Your task to perform on an android device: Open notification settings Image 0: 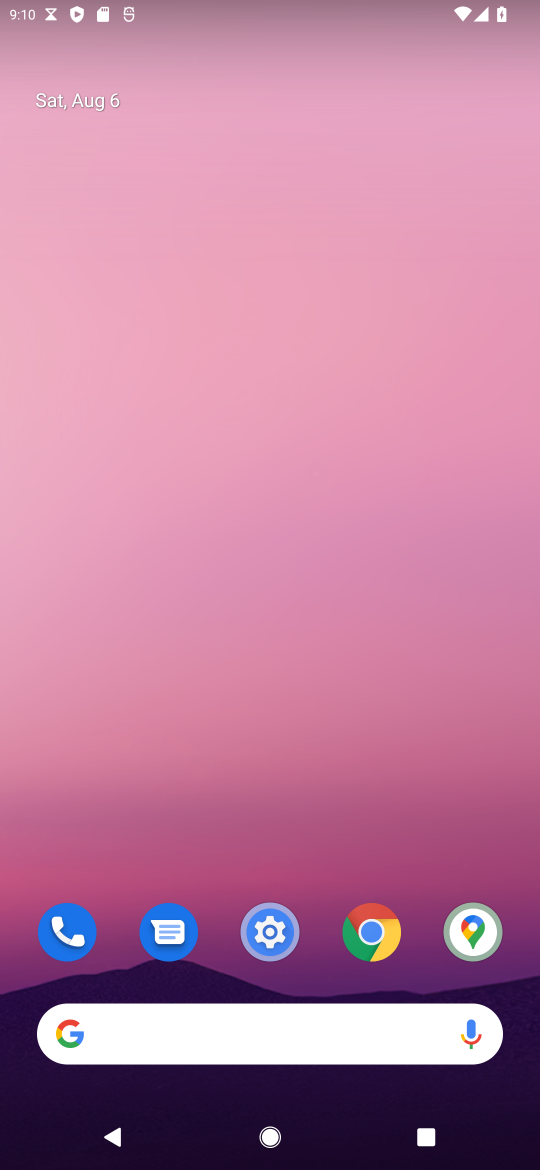
Step 0: drag from (206, 1059) to (323, 503)
Your task to perform on an android device: Open notification settings Image 1: 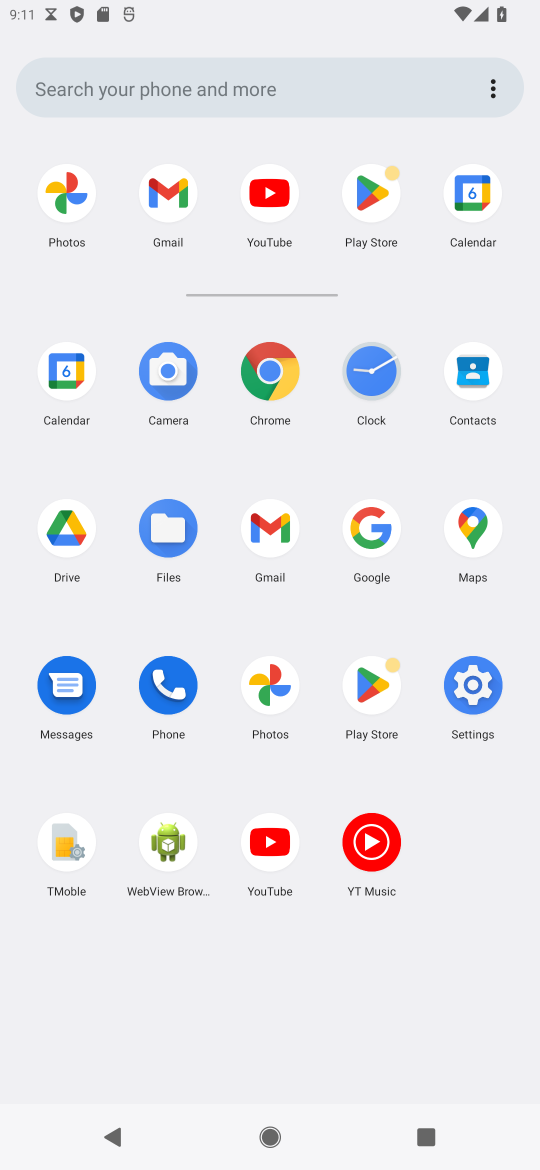
Step 1: click (474, 686)
Your task to perform on an android device: Open notification settings Image 2: 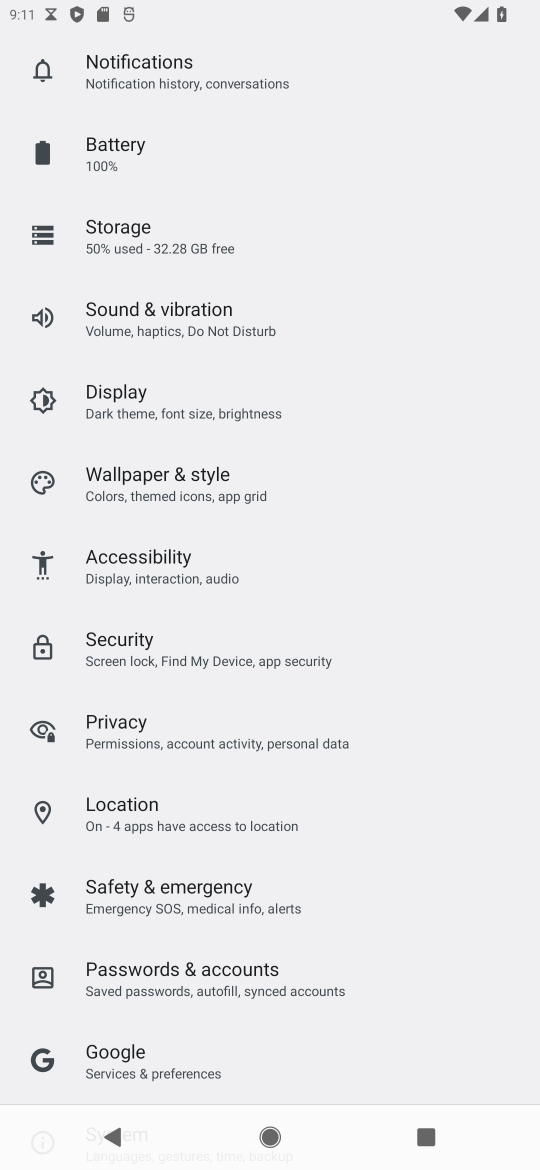
Step 2: click (142, 78)
Your task to perform on an android device: Open notification settings Image 3: 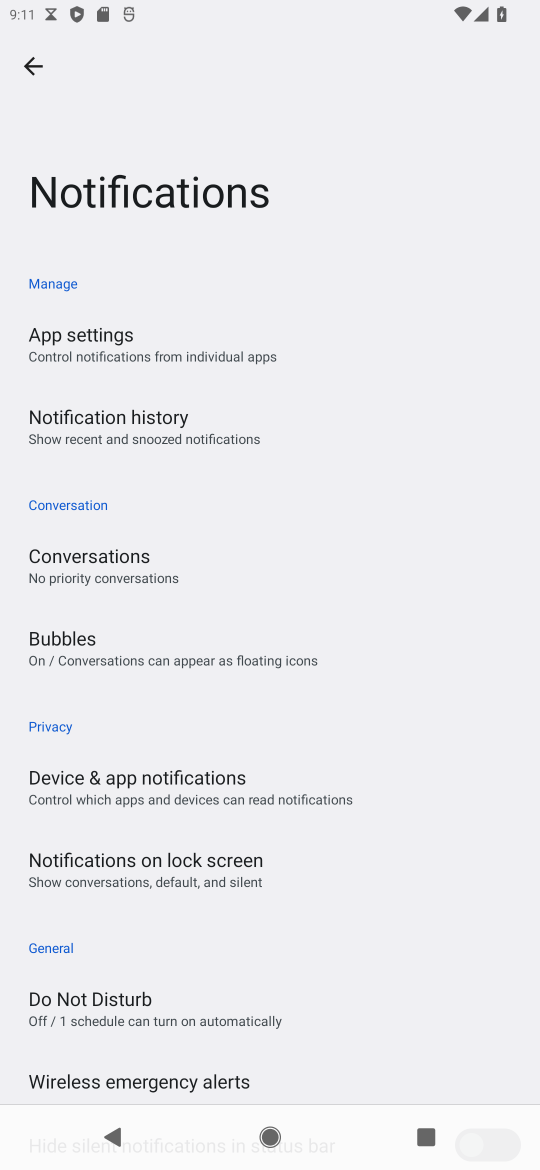
Step 3: task complete